Your task to perform on an android device: Show me recent news Image 0: 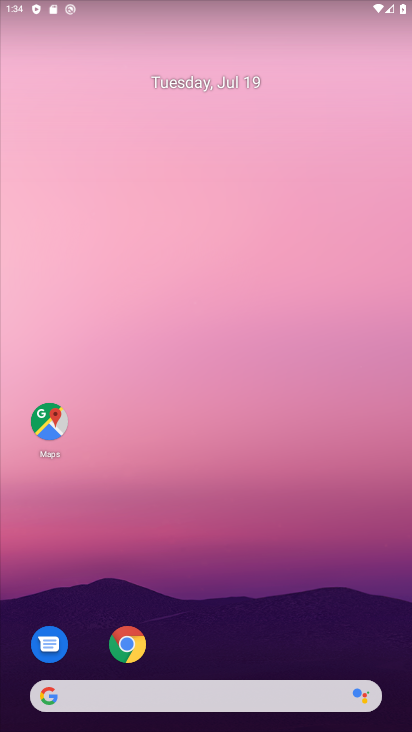
Step 0: drag from (125, 444) to (41, 45)
Your task to perform on an android device: Show me recent news Image 1: 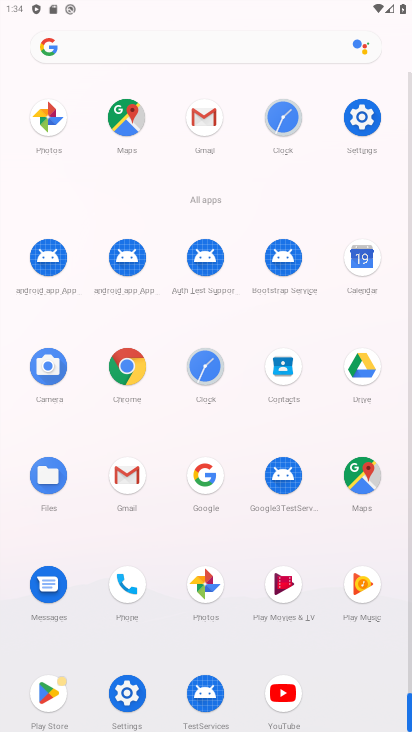
Step 1: drag from (158, 423) to (138, 65)
Your task to perform on an android device: Show me recent news Image 2: 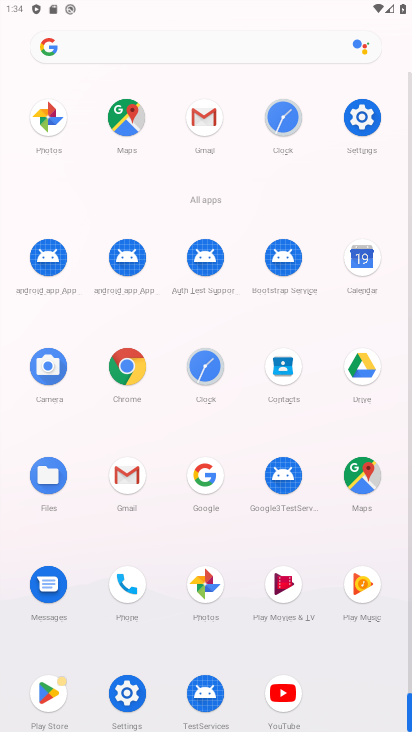
Step 2: click (128, 367)
Your task to perform on an android device: Show me recent news Image 3: 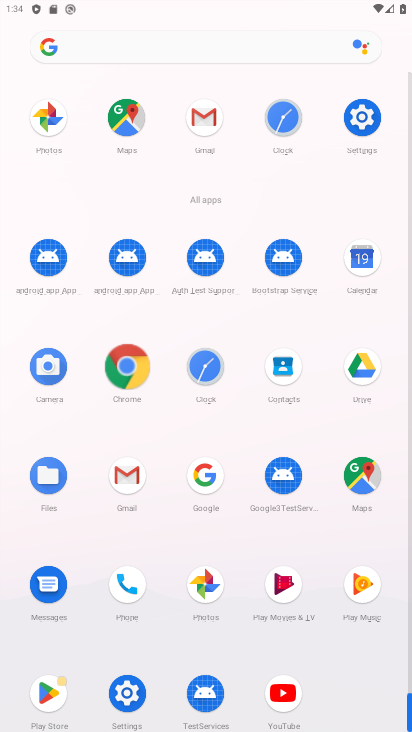
Step 3: click (128, 367)
Your task to perform on an android device: Show me recent news Image 4: 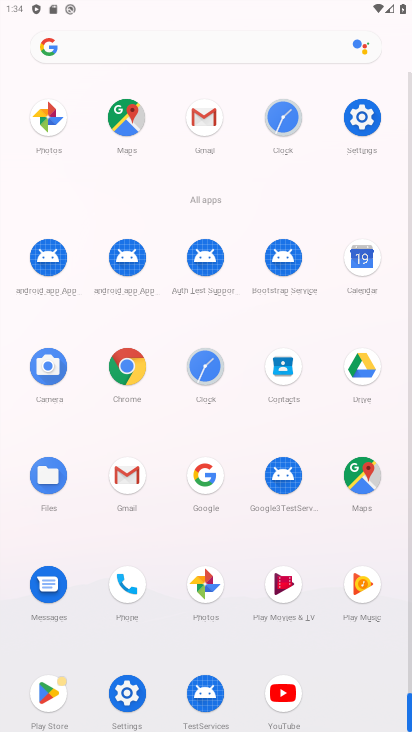
Step 4: click (130, 367)
Your task to perform on an android device: Show me recent news Image 5: 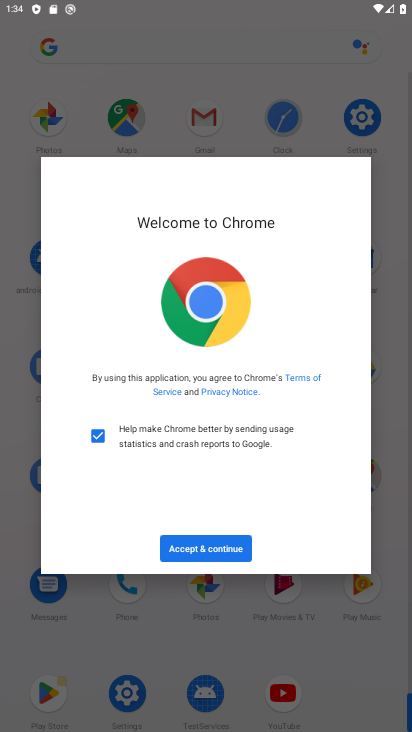
Step 5: click (205, 546)
Your task to perform on an android device: Show me recent news Image 6: 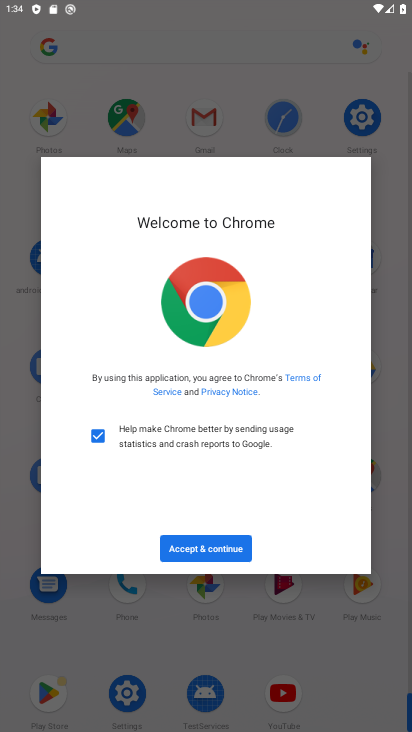
Step 6: click (204, 541)
Your task to perform on an android device: Show me recent news Image 7: 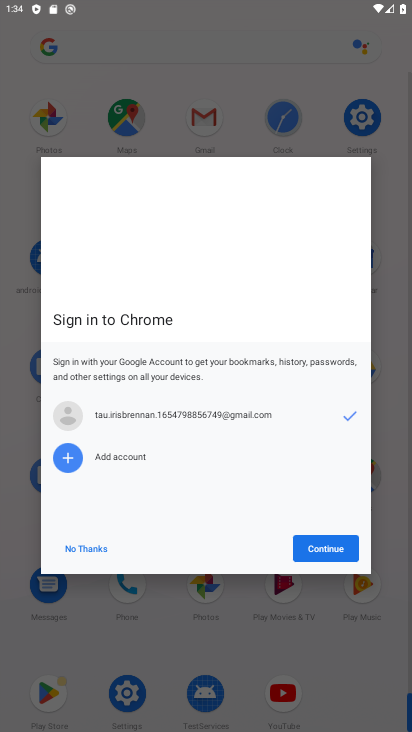
Step 7: click (204, 541)
Your task to perform on an android device: Show me recent news Image 8: 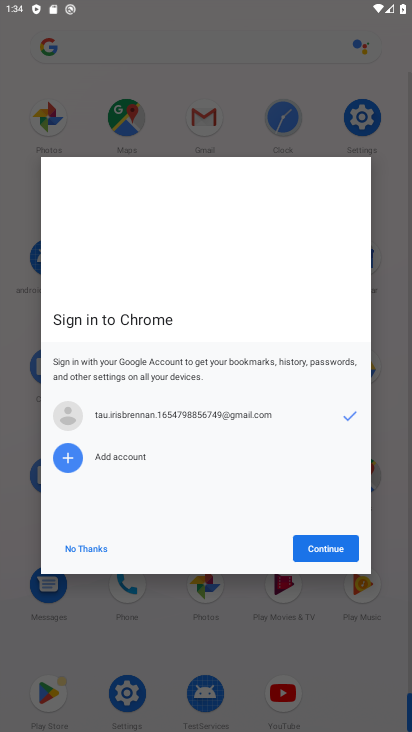
Step 8: click (206, 540)
Your task to perform on an android device: Show me recent news Image 9: 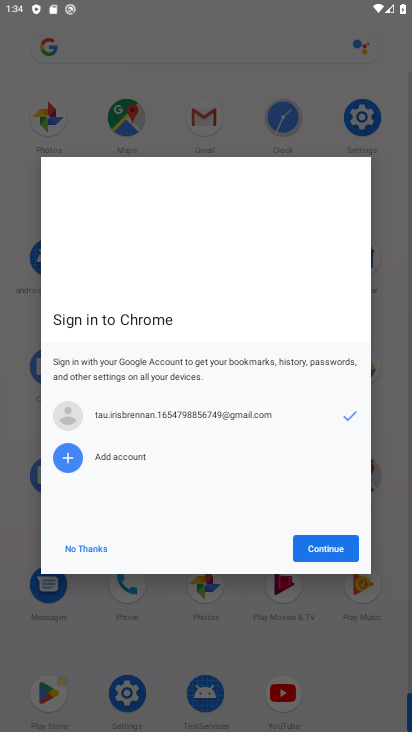
Step 9: click (310, 537)
Your task to perform on an android device: Show me recent news Image 10: 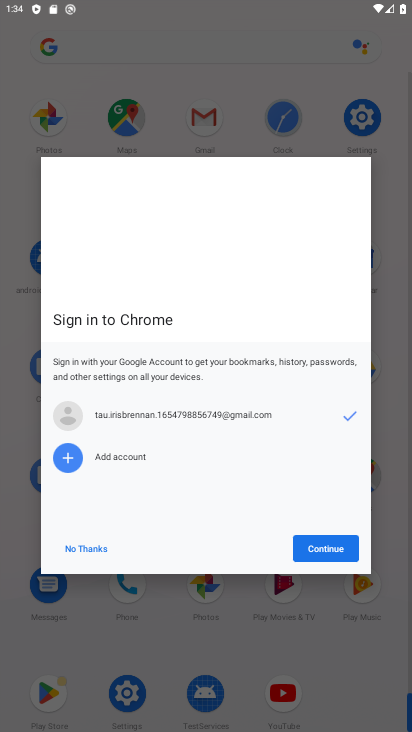
Step 10: click (316, 543)
Your task to perform on an android device: Show me recent news Image 11: 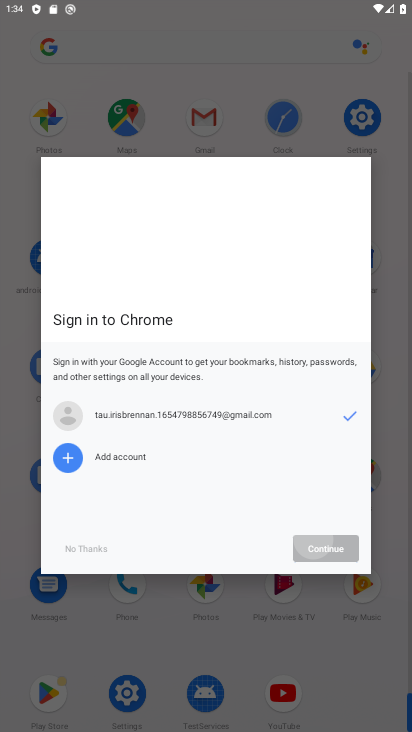
Step 11: click (323, 551)
Your task to perform on an android device: Show me recent news Image 12: 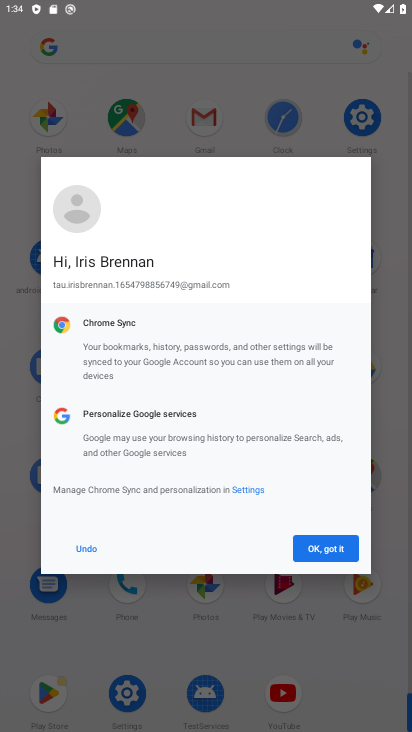
Step 12: click (323, 551)
Your task to perform on an android device: Show me recent news Image 13: 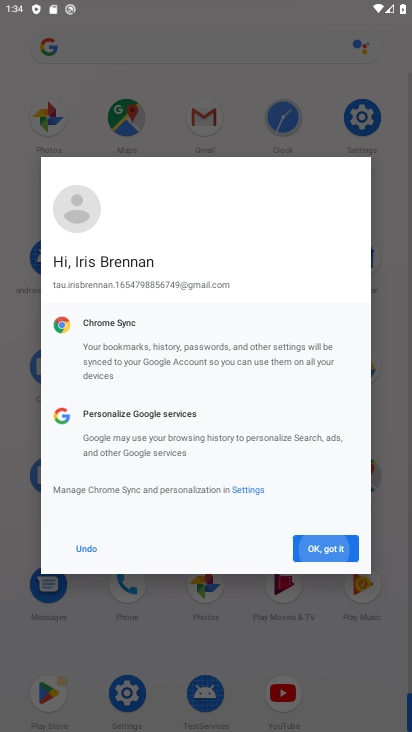
Step 13: click (326, 550)
Your task to perform on an android device: Show me recent news Image 14: 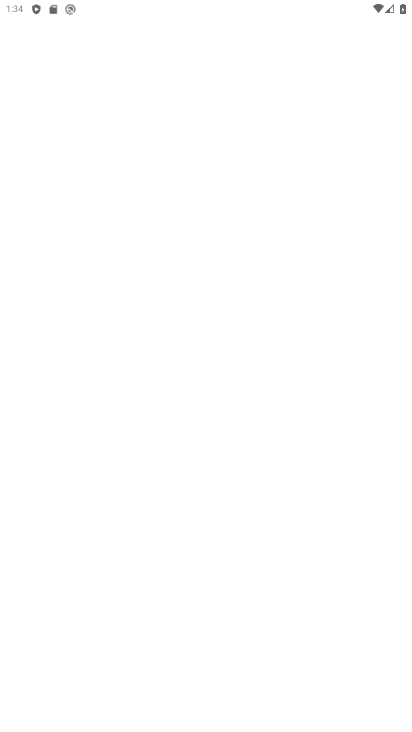
Step 14: click (325, 547)
Your task to perform on an android device: Show me recent news Image 15: 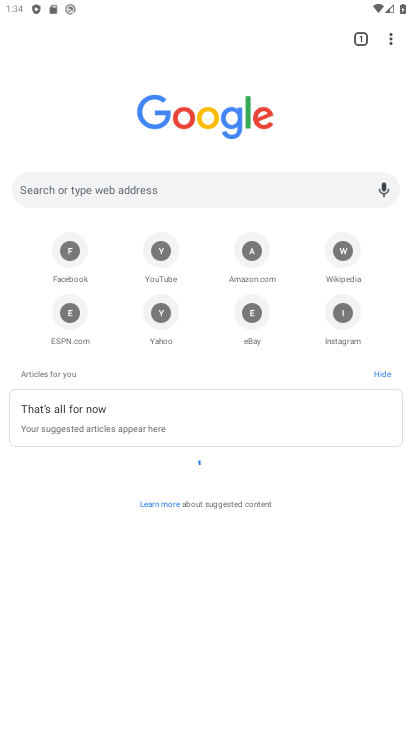
Step 15: task complete